Your task to perform on an android device: Go to sound settings Image 0: 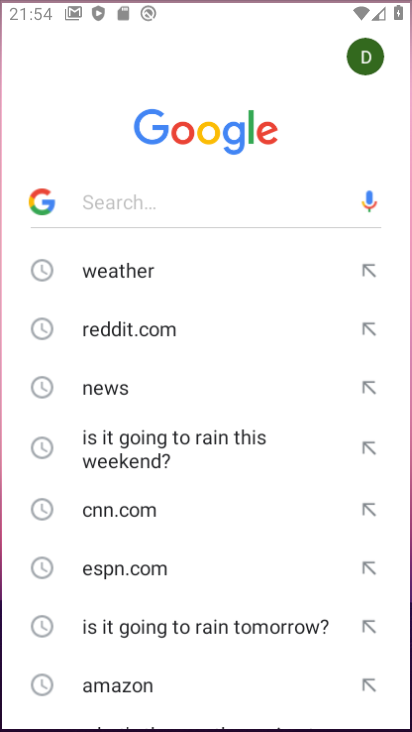
Step 0: click (159, 89)
Your task to perform on an android device: Go to sound settings Image 1: 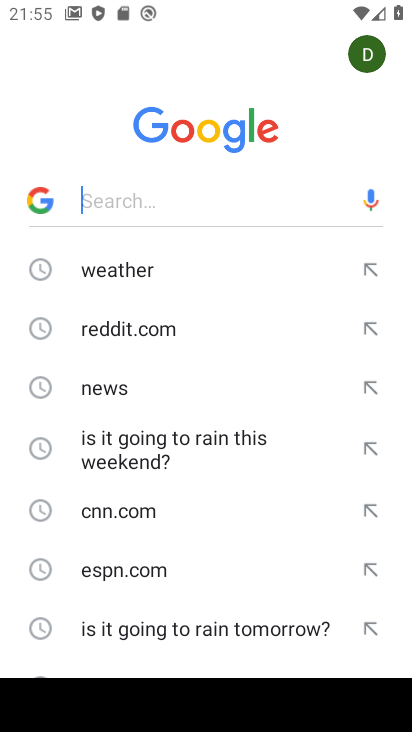
Step 1: press home button
Your task to perform on an android device: Go to sound settings Image 2: 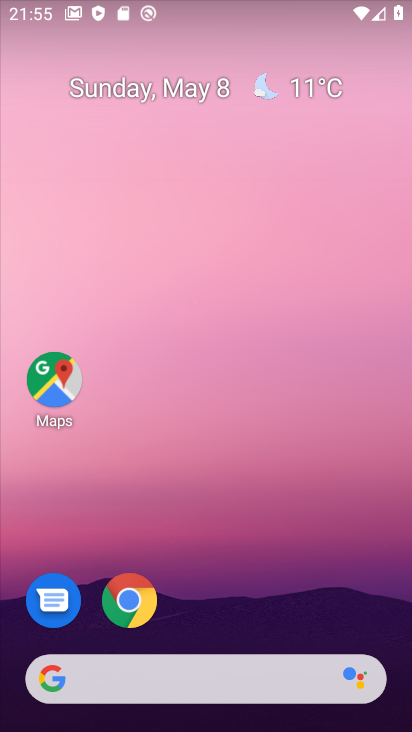
Step 2: drag from (187, 600) to (211, 59)
Your task to perform on an android device: Go to sound settings Image 3: 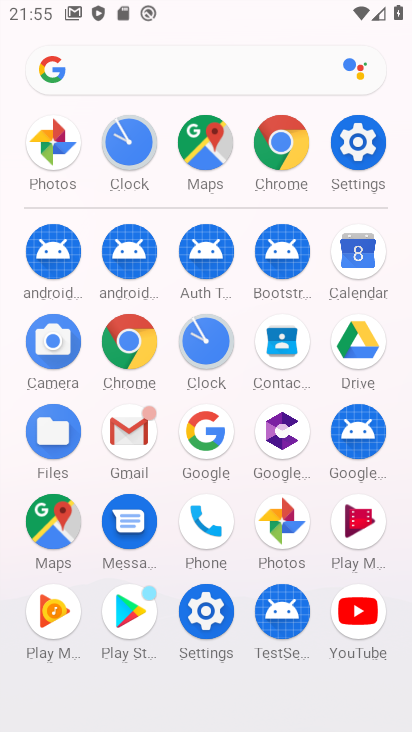
Step 3: click (372, 145)
Your task to perform on an android device: Go to sound settings Image 4: 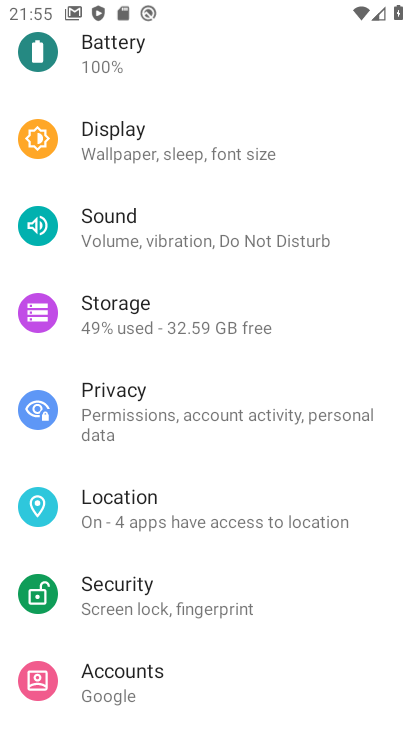
Step 4: click (147, 225)
Your task to perform on an android device: Go to sound settings Image 5: 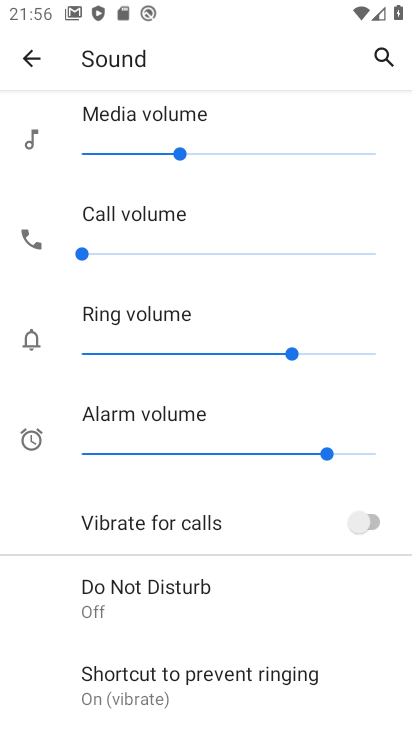
Step 5: task complete